Your task to perform on an android device: Go to Amazon Image 0: 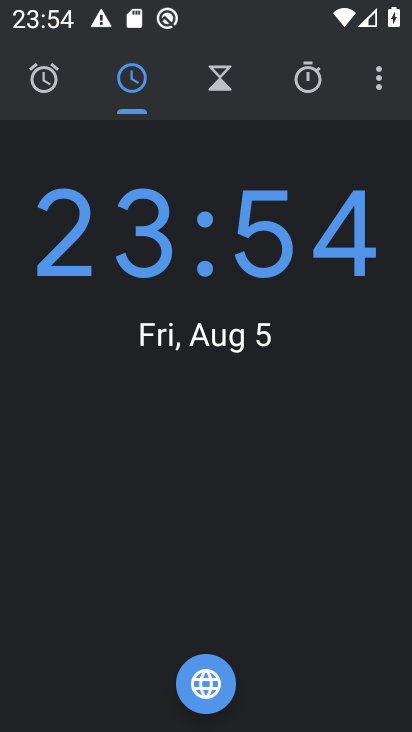
Step 0: press home button
Your task to perform on an android device: Go to Amazon Image 1: 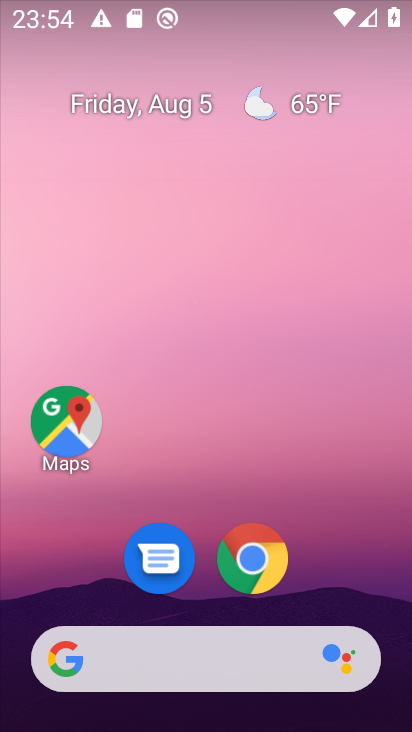
Step 1: drag from (353, 569) to (361, 127)
Your task to perform on an android device: Go to Amazon Image 2: 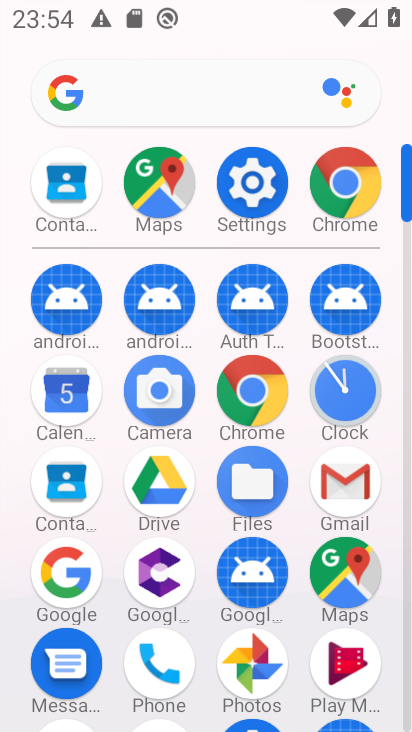
Step 2: click (253, 395)
Your task to perform on an android device: Go to Amazon Image 3: 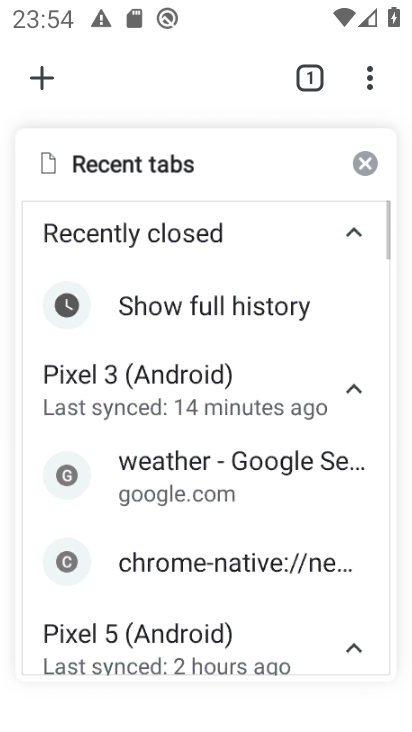
Step 3: press back button
Your task to perform on an android device: Go to Amazon Image 4: 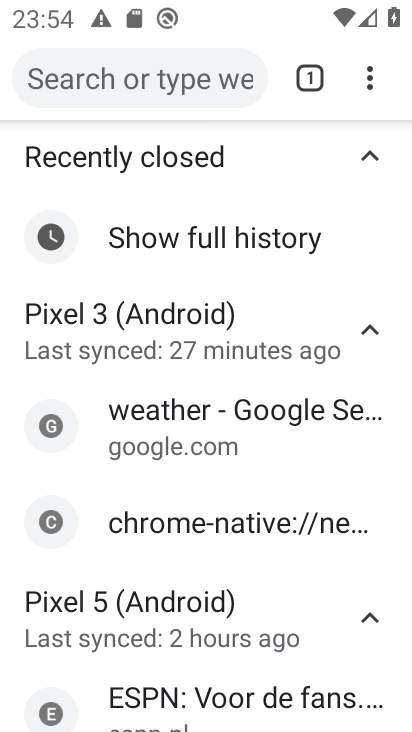
Step 4: click (201, 68)
Your task to perform on an android device: Go to Amazon Image 5: 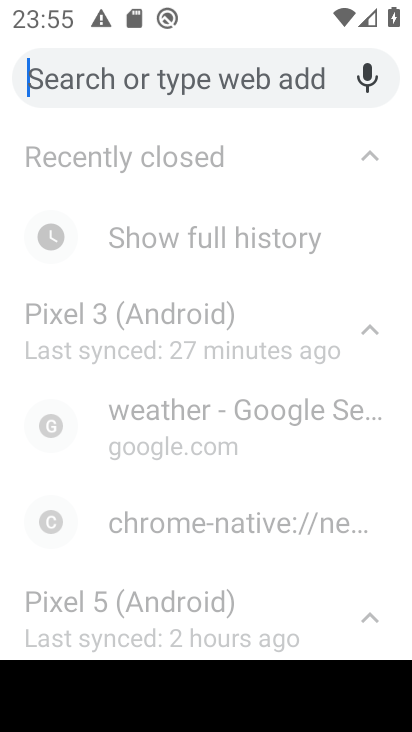
Step 5: type "amazon"
Your task to perform on an android device: Go to Amazon Image 6: 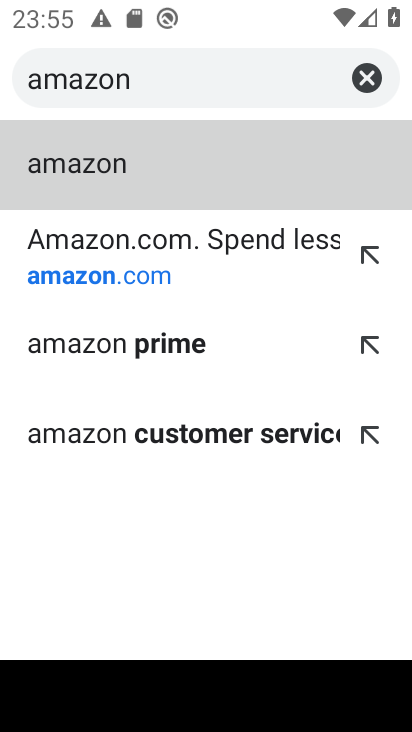
Step 6: click (295, 169)
Your task to perform on an android device: Go to Amazon Image 7: 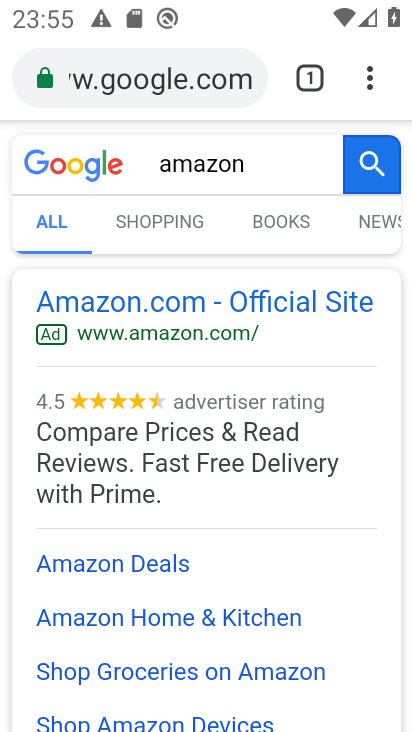
Step 7: task complete